Your task to perform on an android device: turn off picture-in-picture Image 0: 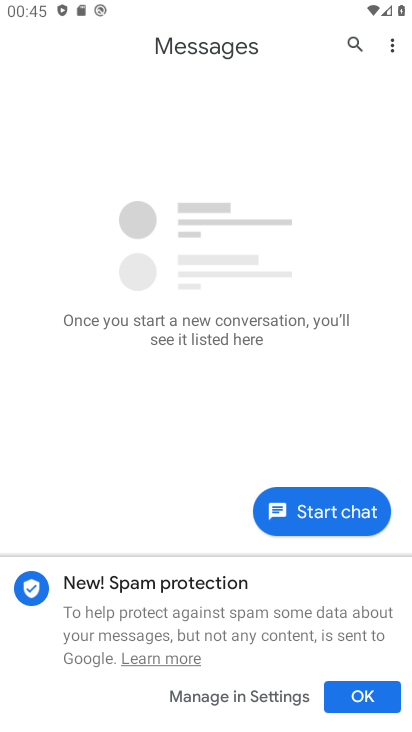
Step 0: press home button
Your task to perform on an android device: turn off picture-in-picture Image 1: 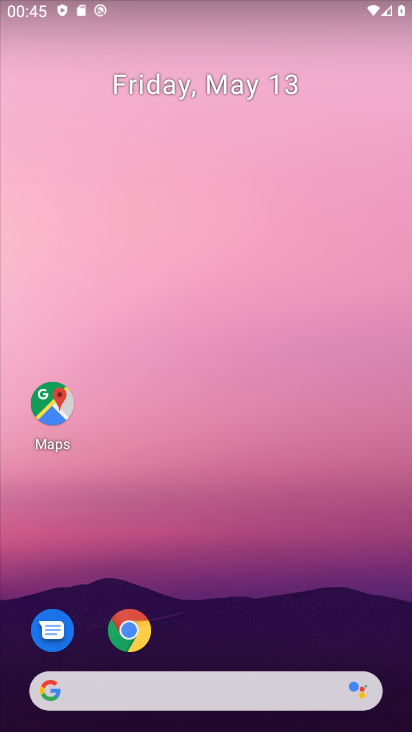
Step 1: drag from (234, 712) to (313, 165)
Your task to perform on an android device: turn off picture-in-picture Image 2: 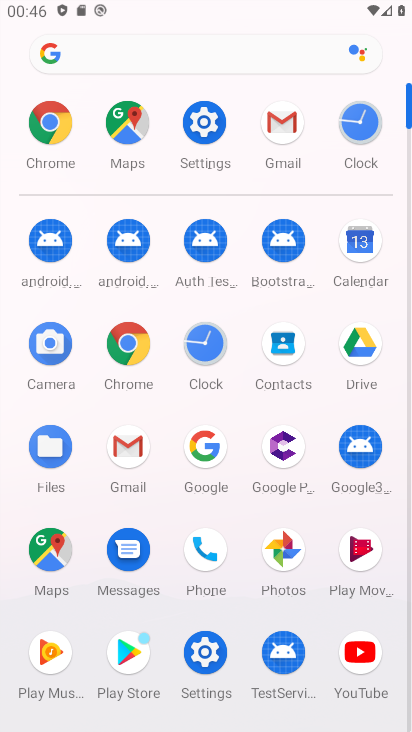
Step 2: click (205, 128)
Your task to perform on an android device: turn off picture-in-picture Image 3: 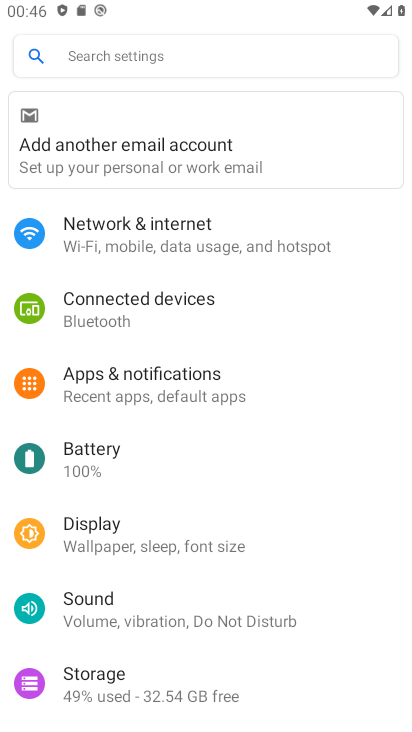
Step 3: click (194, 49)
Your task to perform on an android device: turn off picture-in-picture Image 4: 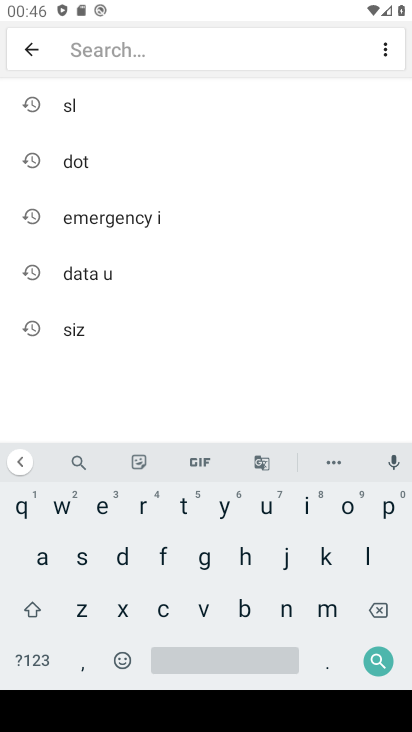
Step 4: click (385, 506)
Your task to perform on an android device: turn off picture-in-picture Image 5: 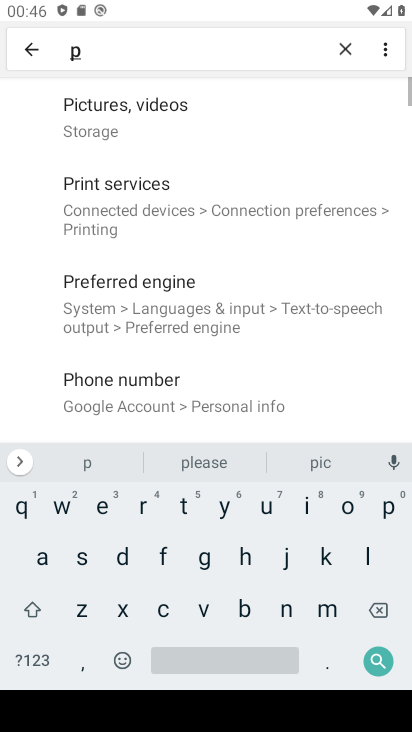
Step 5: click (310, 504)
Your task to perform on an android device: turn off picture-in-picture Image 6: 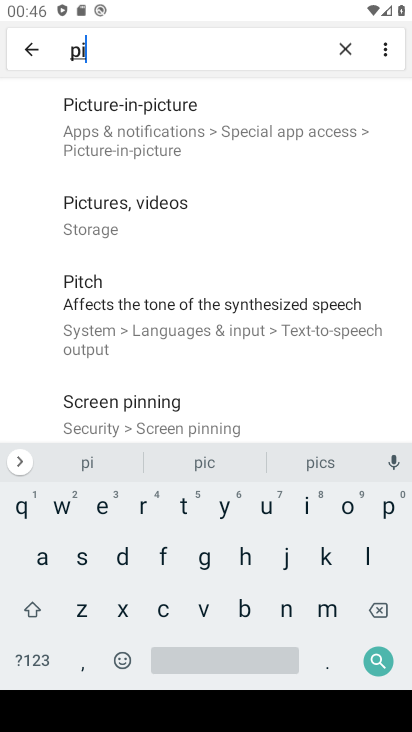
Step 6: click (160, 603)
Your task to perform on an android device: turn off picture-in-picture Image 7: 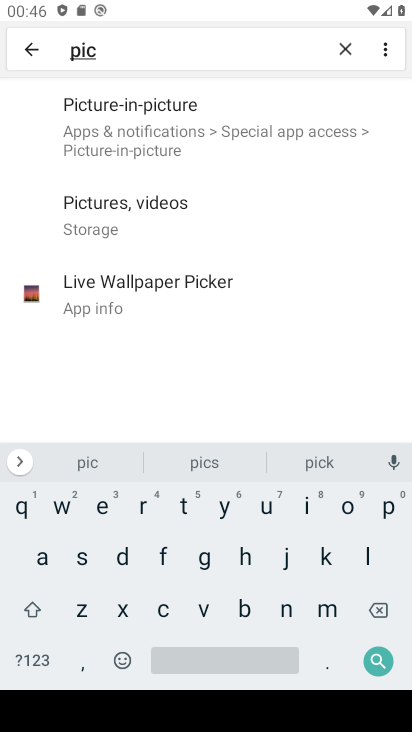
Step 7: click (171, 109)
Your task to perform on an android device: turn off picture-in-picture Image 8: 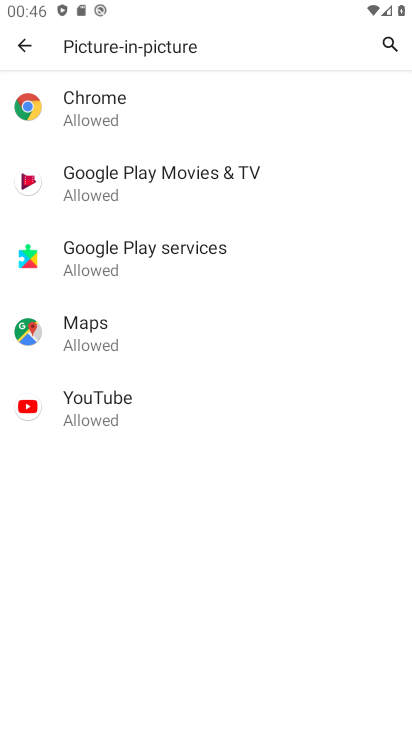
Step 8: task complete